Your task to perform on an android device: Open eBay Image 0: 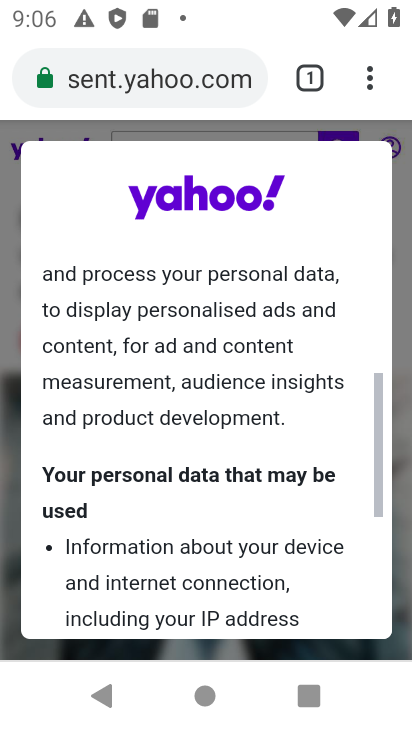
Step 0: press home button
Your task to perform on an android device: Open eBay Image 1: 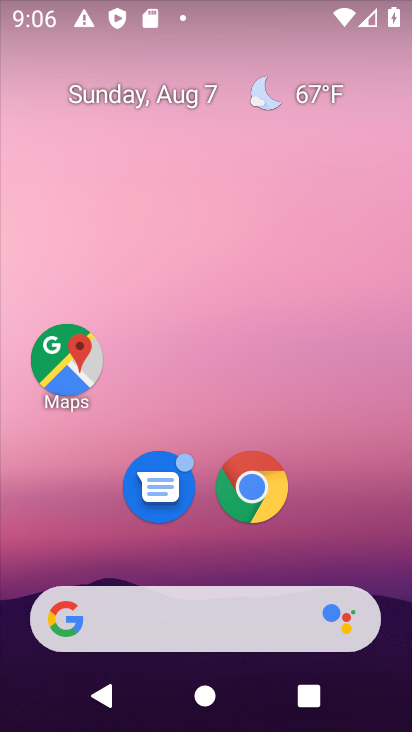
Step 1: click (227, 479)
Your task to perform on an android device: Open eBay Image 2: 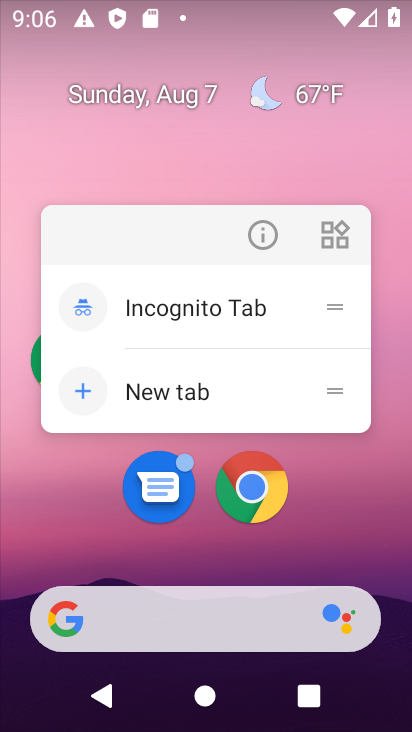
Step 2: click (253, 485)
Your task to perform on an android device: Open eBay Image 3: 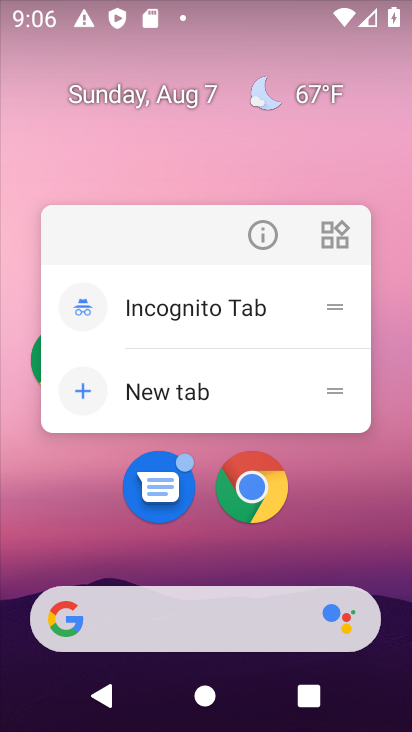
Step 3: click (258, 488)
Your task to perform on an android device: Open eBay Image 4: 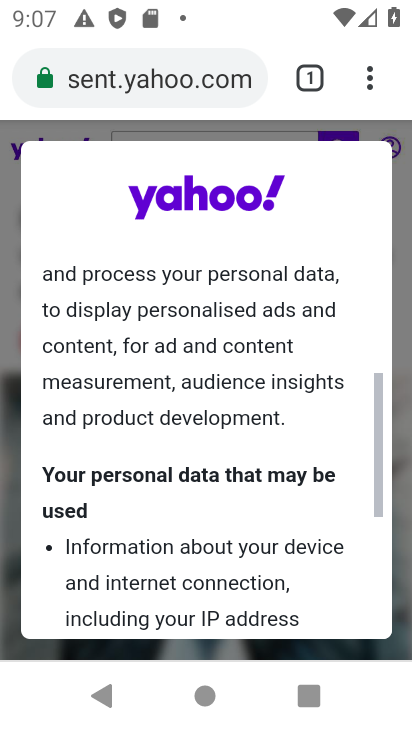
Step 4: click (239, 76)
Your task to perform on an android device: Open eBay Image 5: 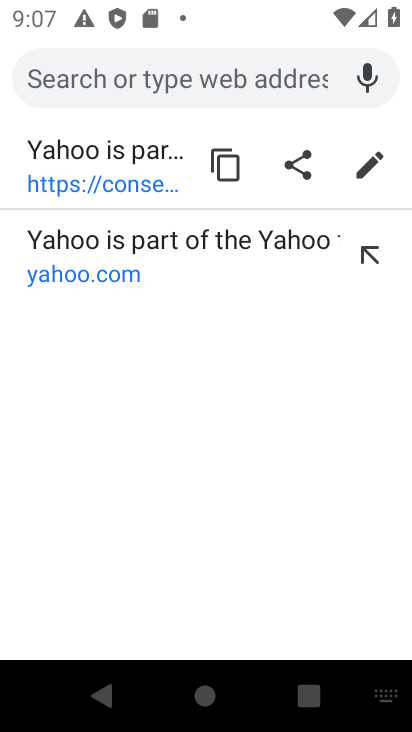
Step 5: type "eBay"
Your task to perform on an android device: Open eBay Image 6: 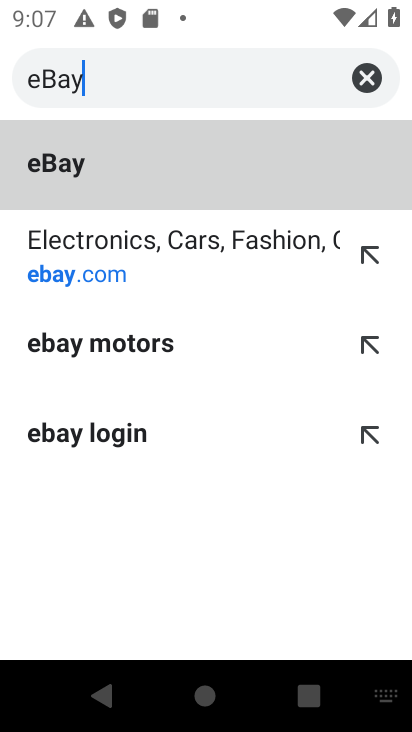
Step 6: click (79, 152)
Your task to perform on an android device: Open eBay Image 7: 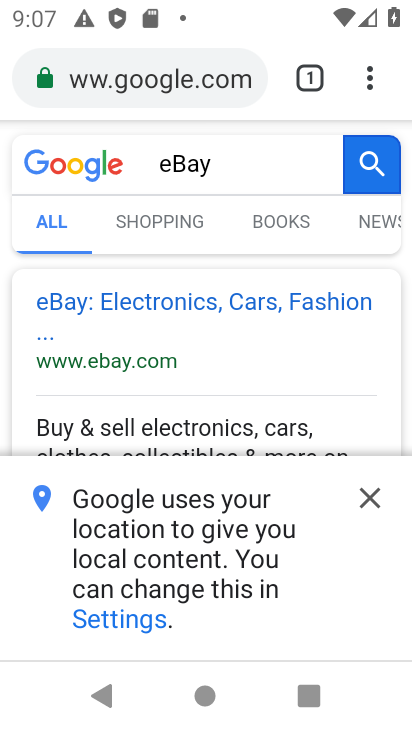
Step 7: task complete